Your task to perform on an android device: Open the map Image 0: 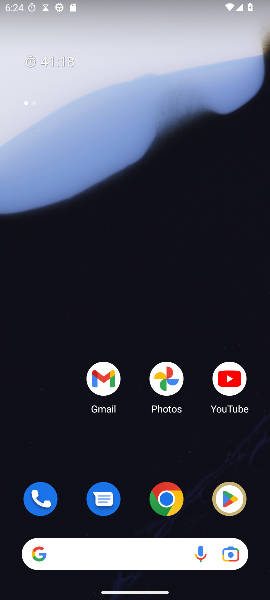
Step 0: drag from (146, 571) to (219, 3)
Your task to perform on an android device: Open the map Image 1: 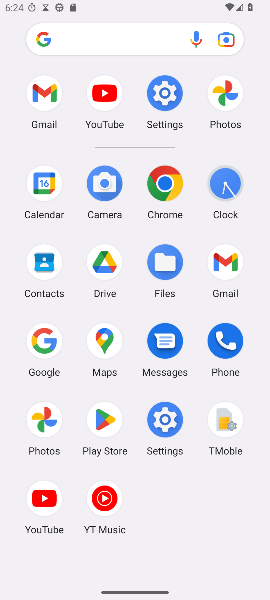
Step 1: click (107, 341)
Your task to perform on an android device: Open the map Image 2: 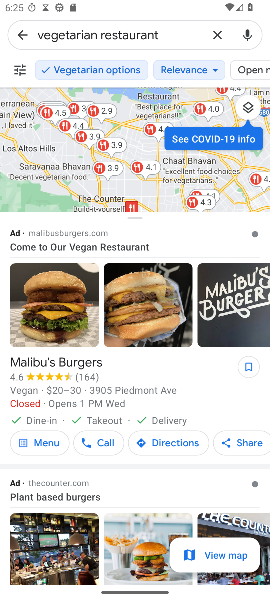
Step 2: task complete